Your task to perform on an android device: Open sound settings Image 0: 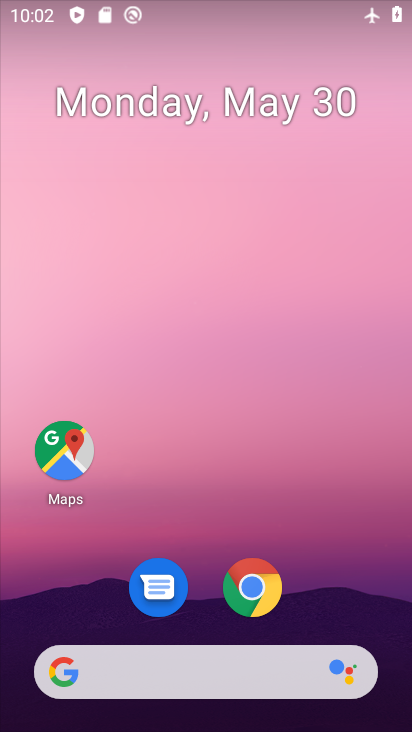
Step 0: drag from (329, 584) to (255, 14)
Your task to perform on an android device: Open sound settings Image 1: 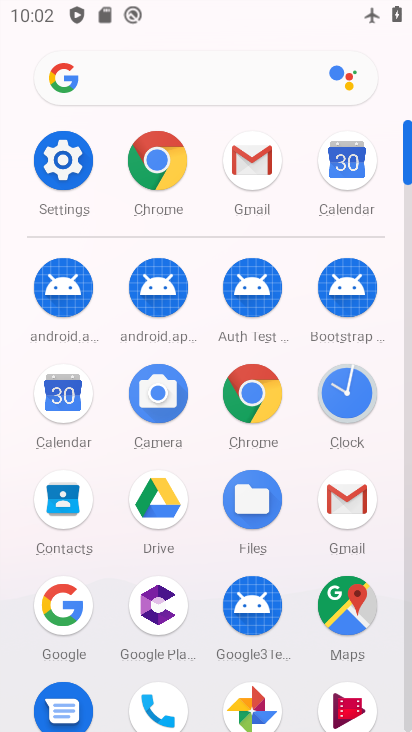
Step 1: drag from (14, 597) to (17, 160)
Your task to perform on an android device: Open sound settings Image 2: 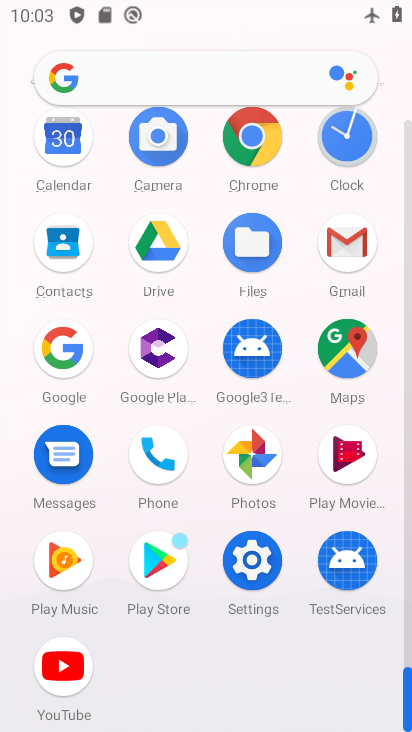
Step 2: click (253, 558)
Your task to perform on an android device: Open sound settings Image 3: 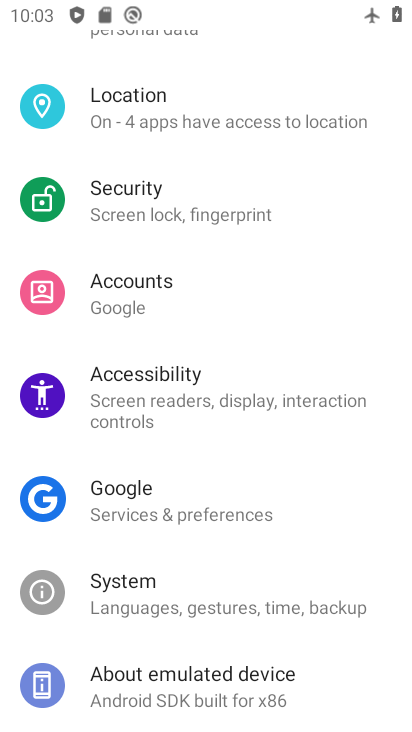
Step 3: drag from (216, 535) to (255, 97)
Your task to perform on an android device: Open sound settings Image 4: 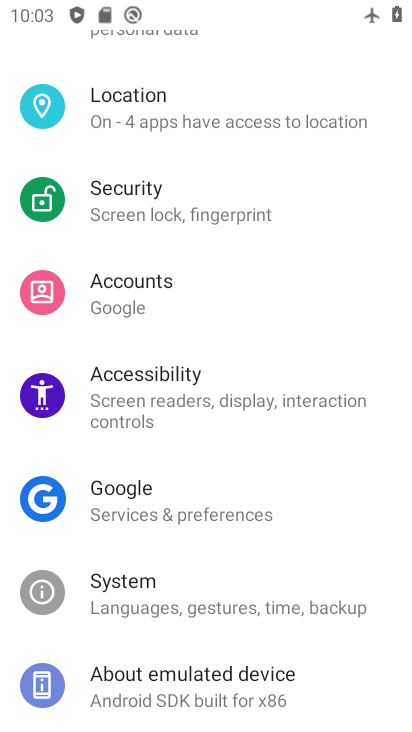
Step 4: drag from (240, 162) to (212, 599)
Your task to perform on an android device: Open sound settings Image 5: 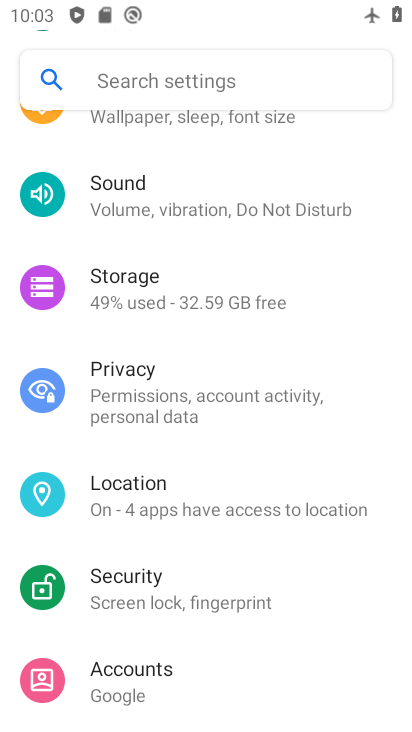
Step 5: drag from (239, 176) to (247, 557)
Your task to perform on an android device: Open sound settings Image 6: 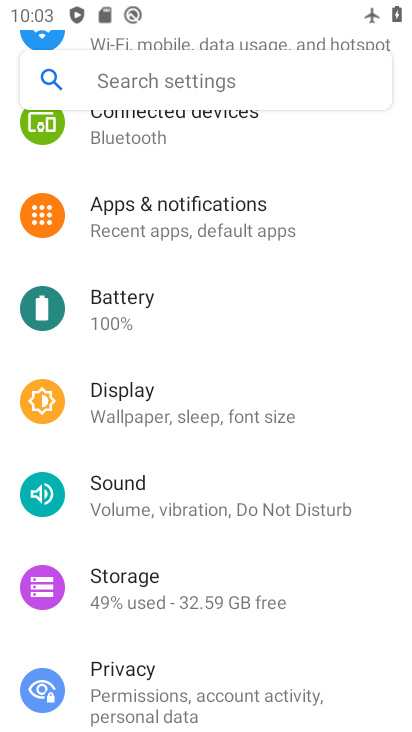
Step 6: drag from (270, 161) to (238, 194)
Your task to perform on an android device: Open sound settings Image 7: 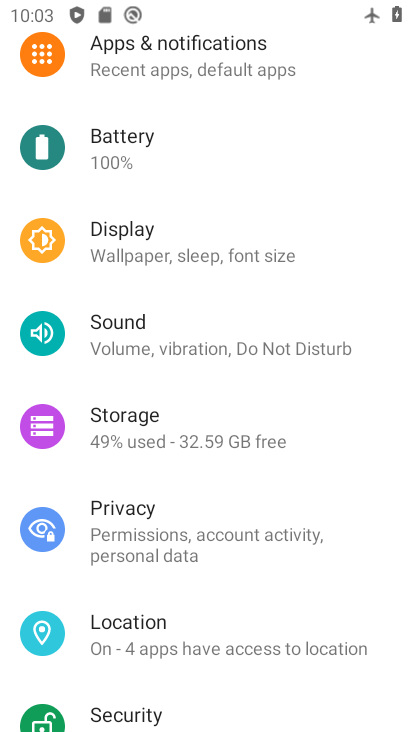
Step 7: click (153, 331)
Your task to perform on an android device: Open sound settings Image 8: 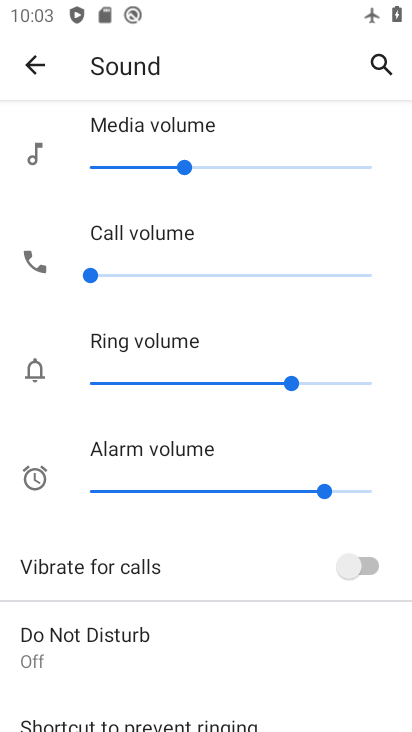
Step 8: drag from (227, 514) to (235, 95)
Your task to perform on an android device: Open sound settings Image 9: 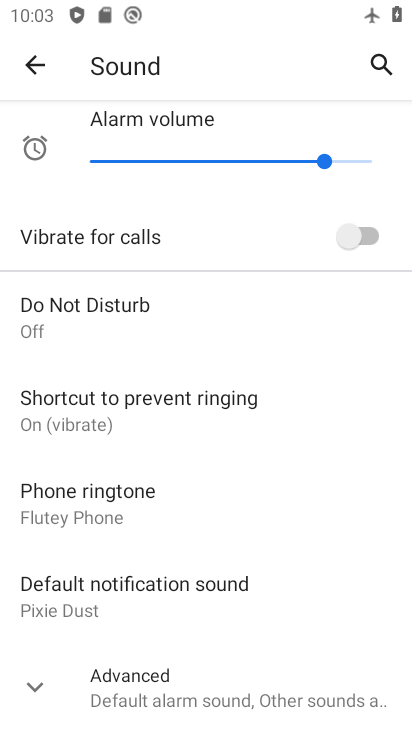
Step 9: drag from (244, 564) to (252, 273)
Your task to perform on an android device: Open sound settings Image 10: 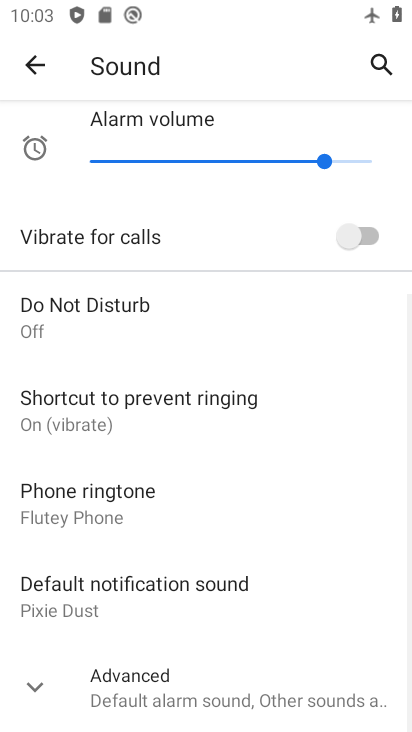
Step 10: click (34, 686)
Your task to perform on an android device: Open sound settings Image 11: 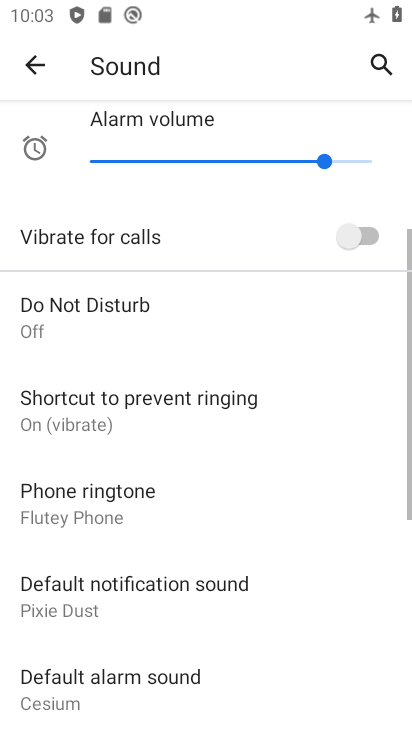
Step 11: task complete